Your task to perform on an android device: turn off sleep mode Image 0: 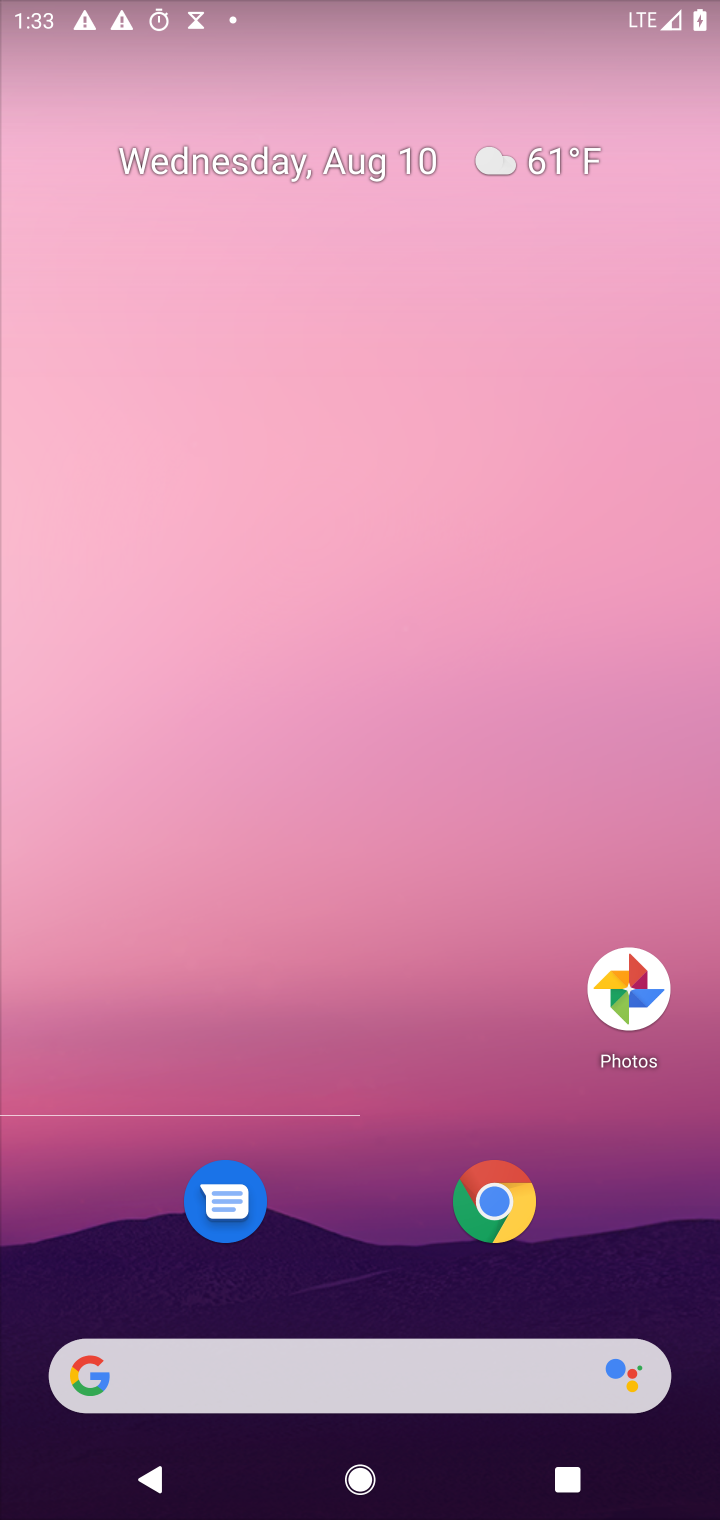
Step 0: press home button
Your task to perform on an android device: turn off sleep mode Image 1: 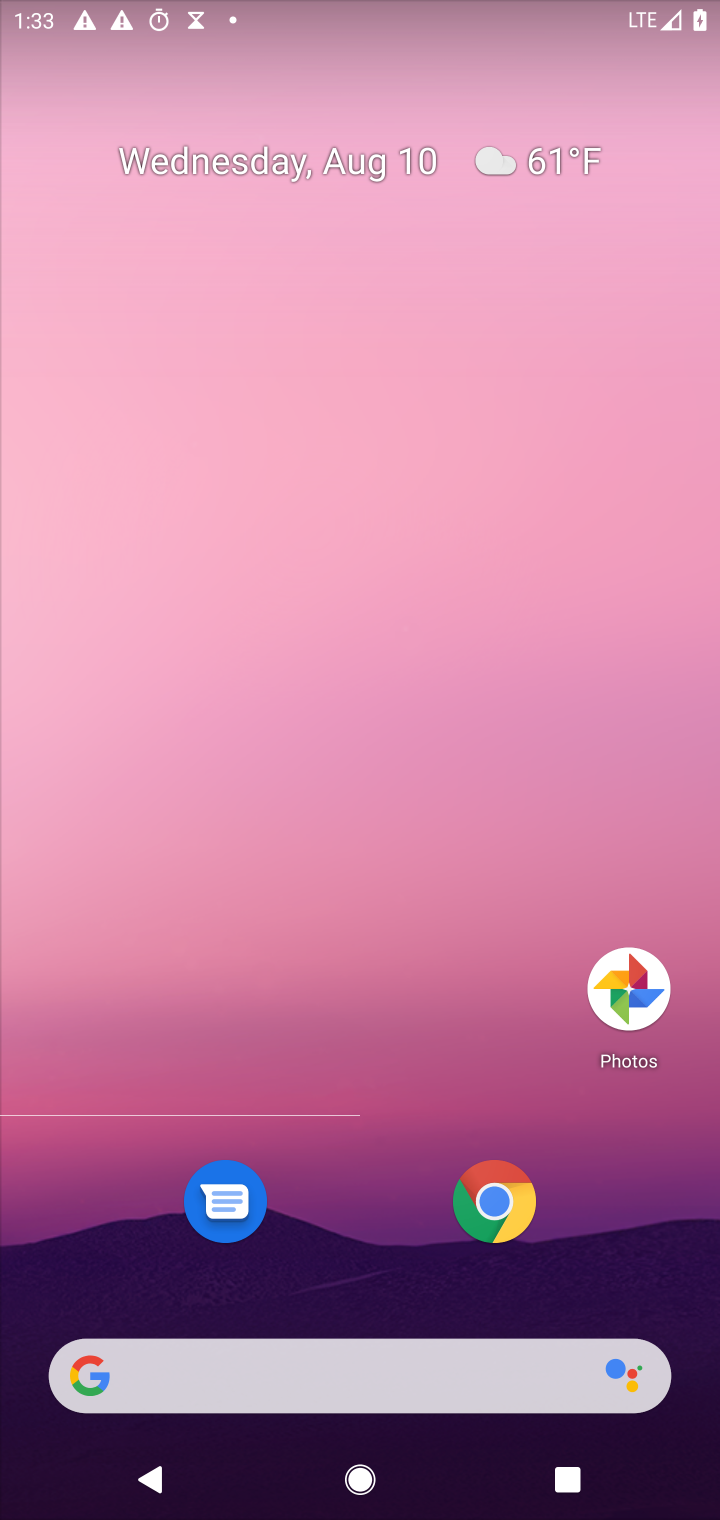
Step 1: drag from (346, 175) to (367, 60)
Your task to perform on an android device: turn off sleep mode Image 2: 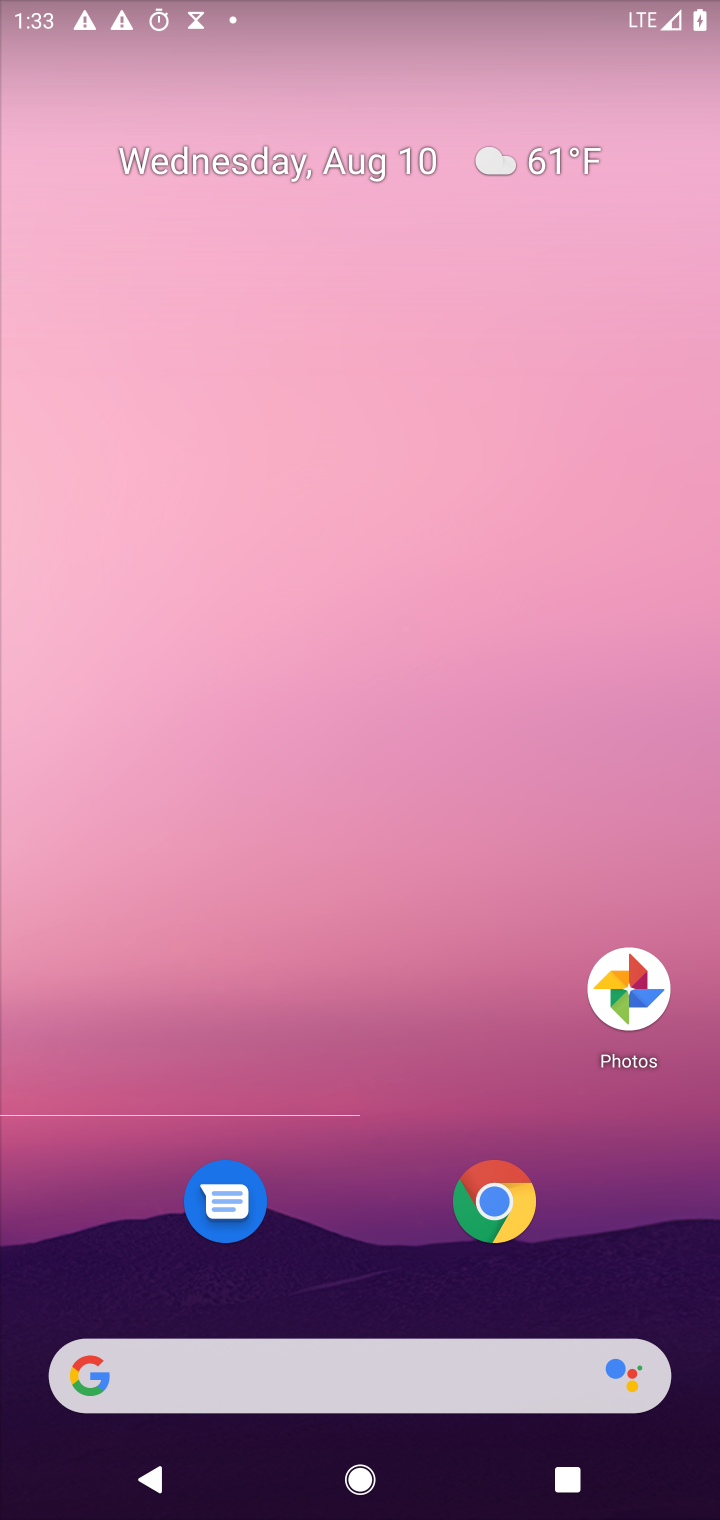
Step 2: drag from (326, 851) to (331, 25)
Your task to perform on an android device: turn off sleep mode Image 3: 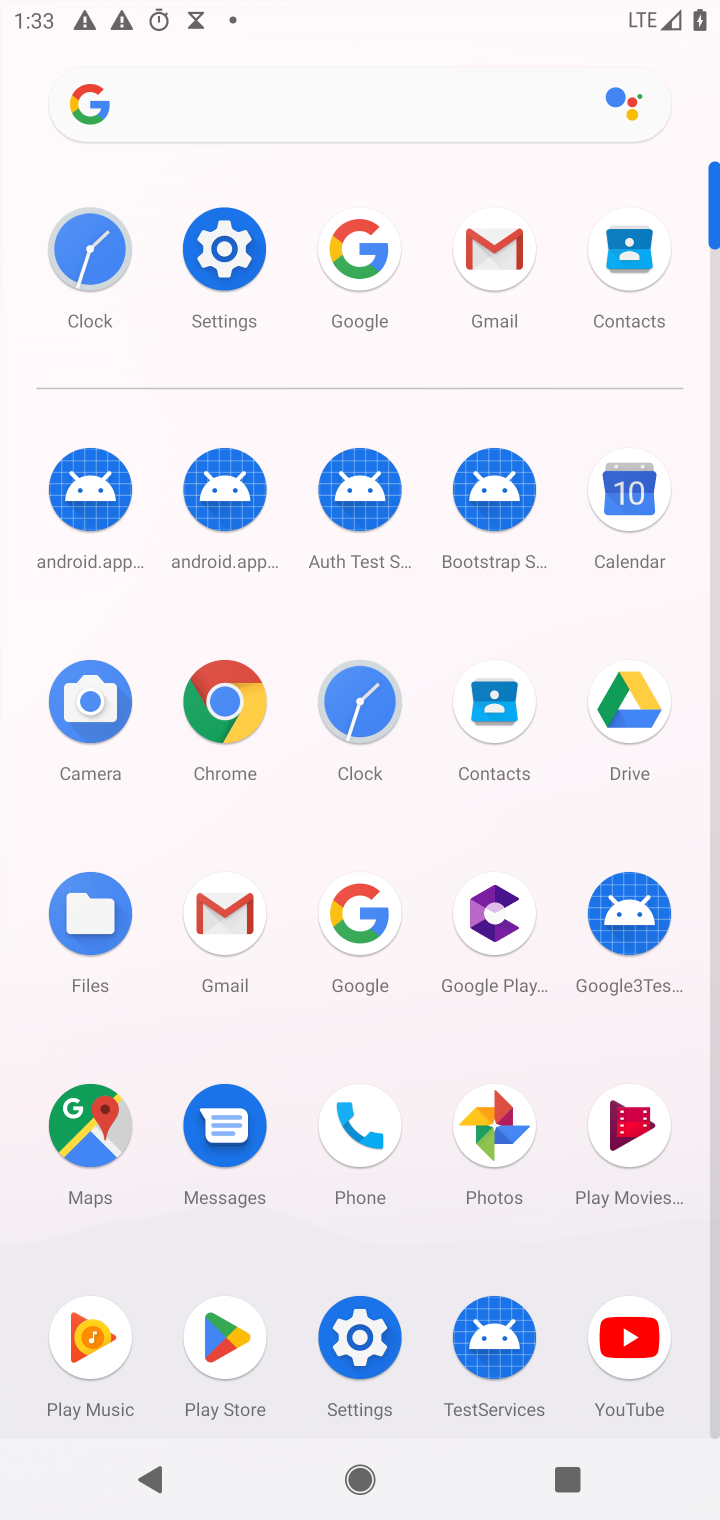
Step 3: click (226, 247)
Your task to perform on an android device: turn off sleep mode Image 4: 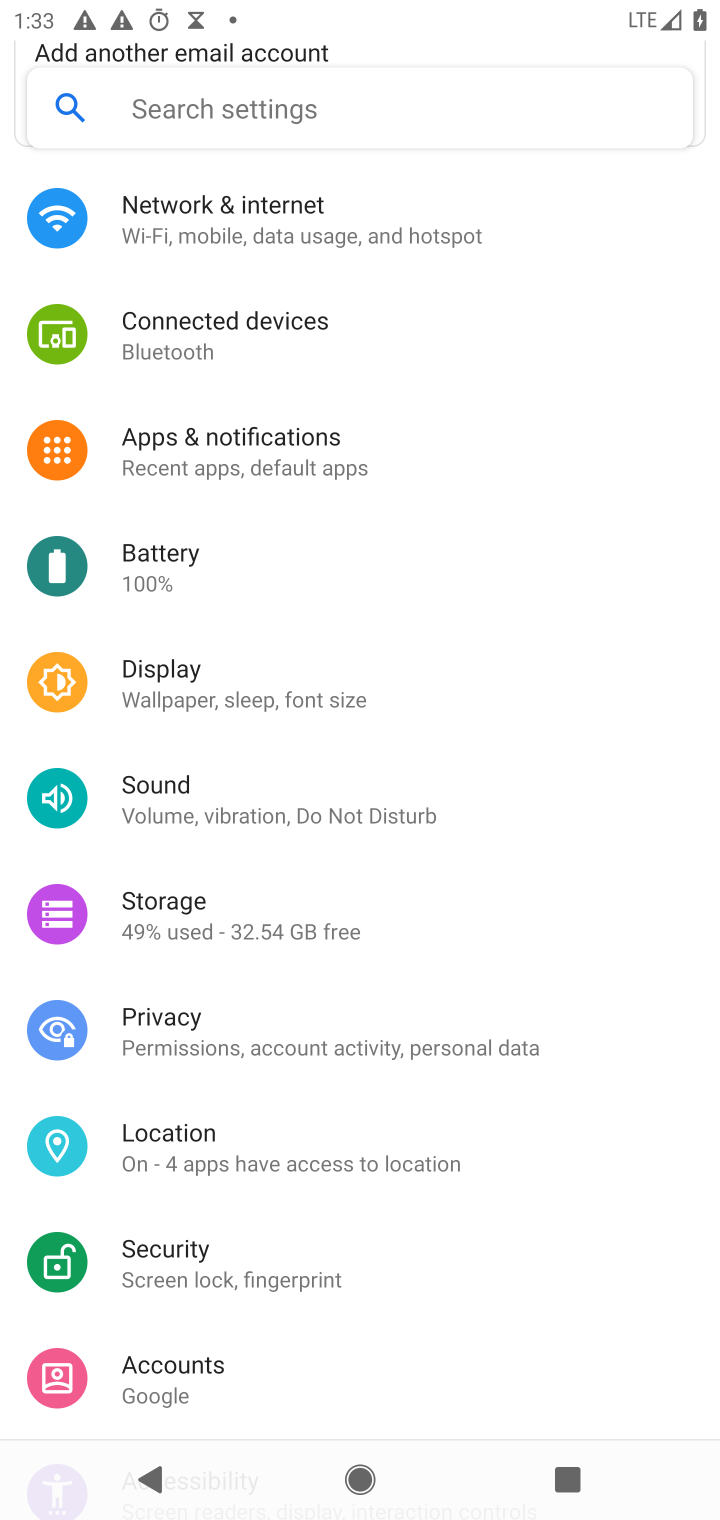
Step 4: click (151, 698)
Your task to perform on an android device: turn off sleep mode Image 5: 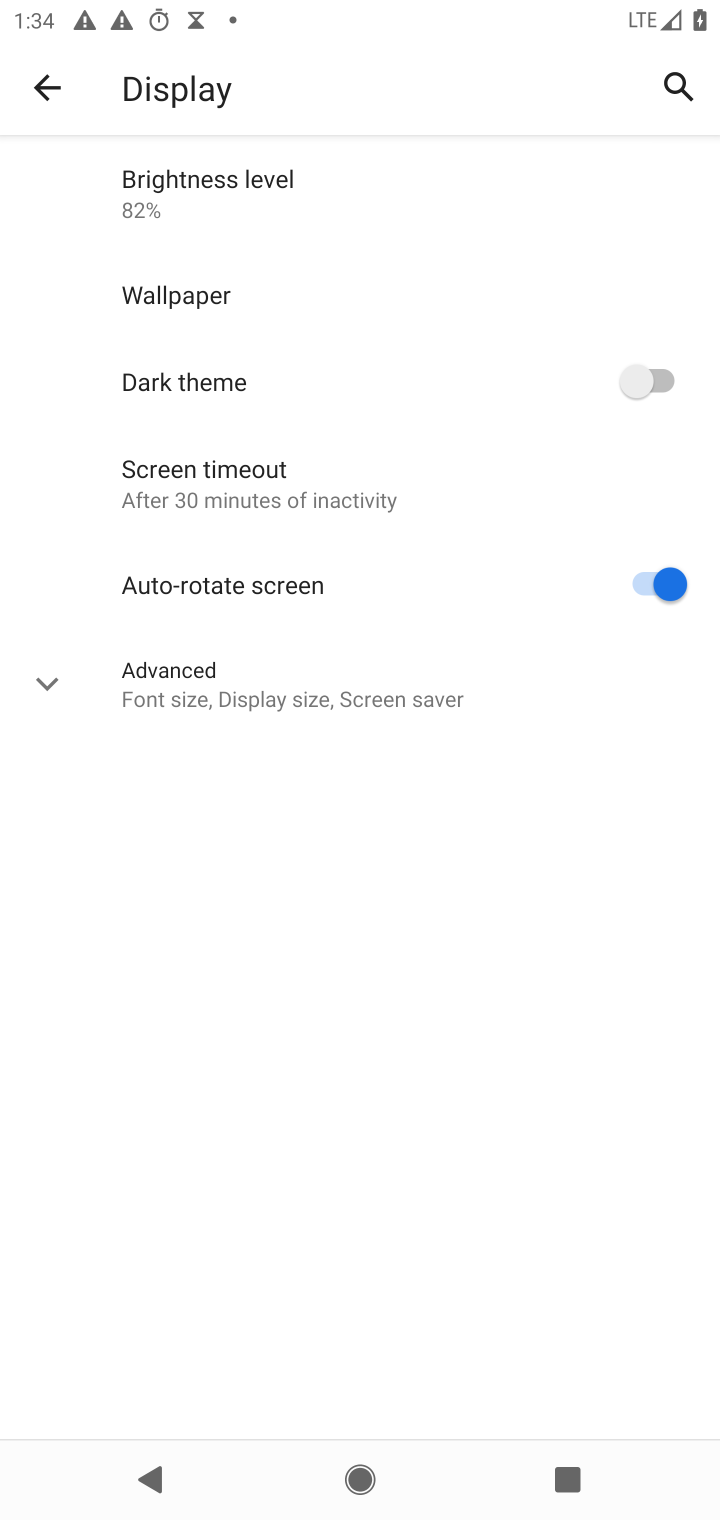
Step 5: click (38, 677)
Your task to perform on an android device: turn off sleep mode Image 6: 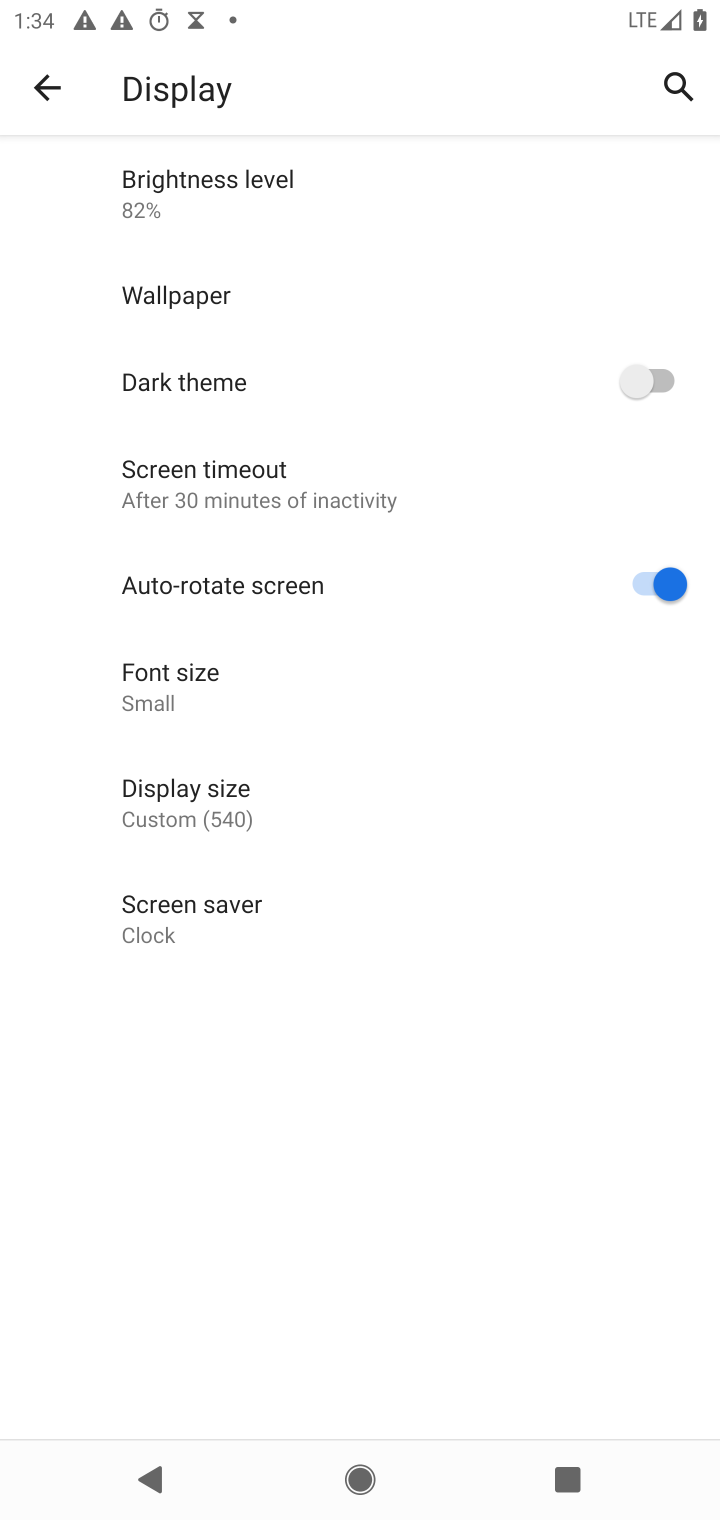
Step 6: task complete